Your task to perform on an android device: Open calendar and show me the first week of next month Image 0: 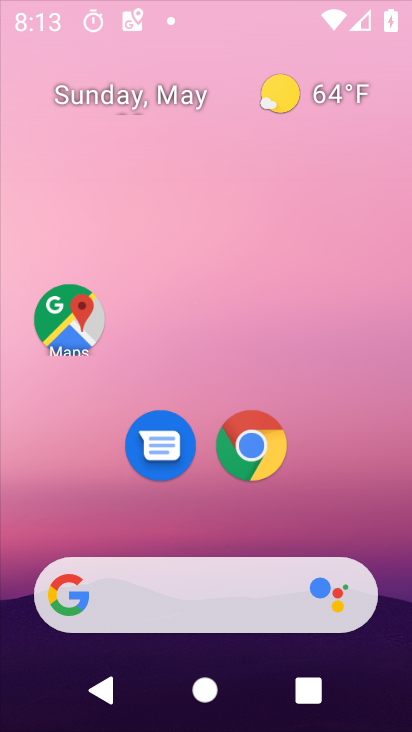
Step 0: click (242, 194)
Your task to perform on an android device: Open calendar and show me the first week of next month Image 1: 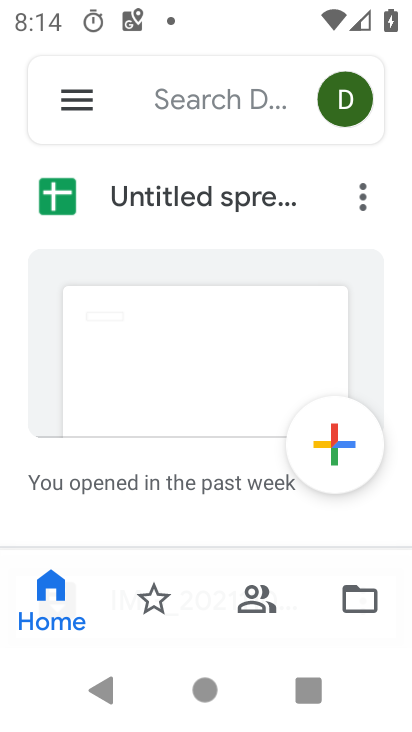
Step 1: drag from (260, 550) to (281, 90)
Your task to perform on an android device: Open calendar and show me the first week of next month Image 2: 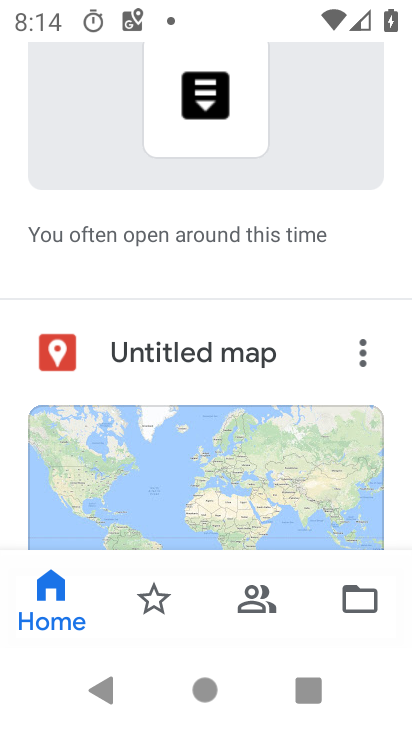
Step 2: drag from (220, 171) to (202, 630)
Your task to perform on an android device: Open calendar and show me the first week of next month Image 3: 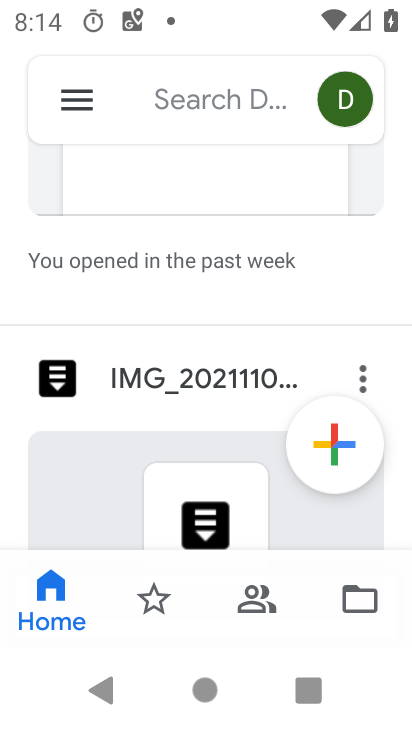
Step 3: press home button
Your task to perform on an android device: Open calendar and show me the first week of next month Image 4: 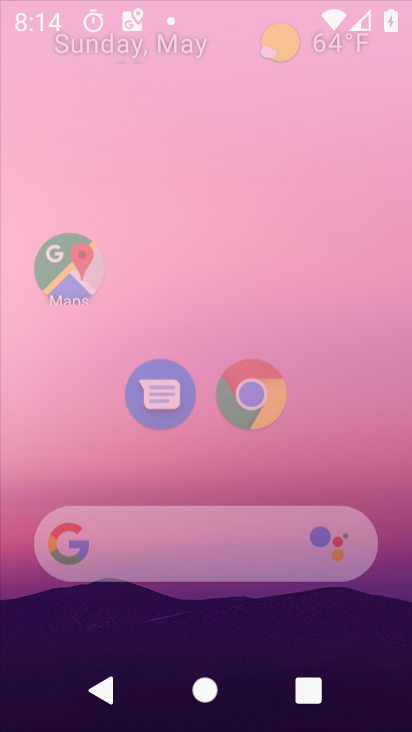
Step 4: drag from (241, 524) to (362, 44)
Your task to perform on an android device: Open calendar and show me the first week of next month Image 5: 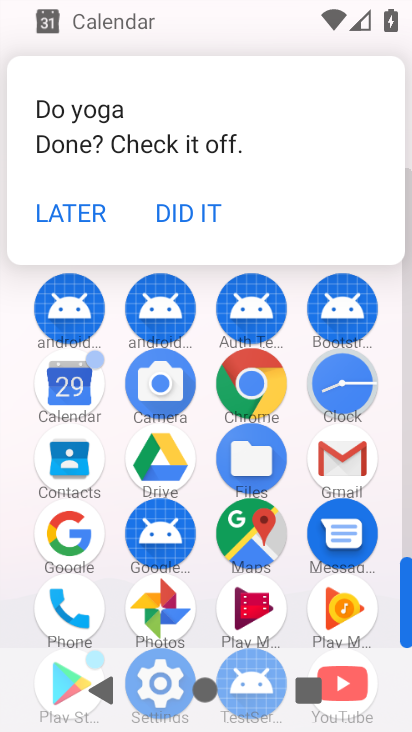
Step 5: click (61, 376)
Your task to perform on an android device: Open calendar and show me the first week of next month Image 6: 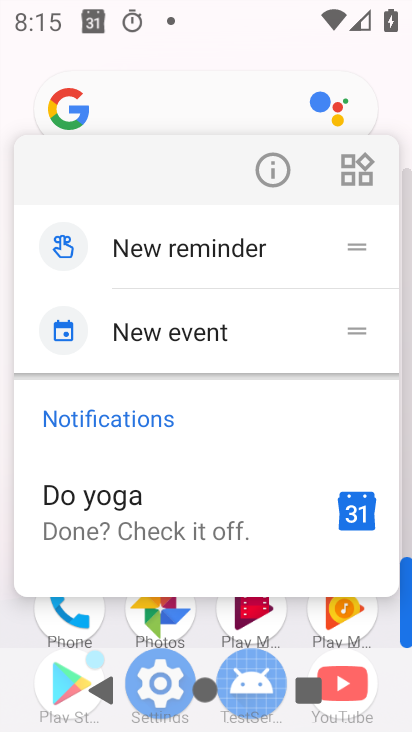
Step 6: click (269, 163)
Your task to perform on an android device: Open calendar and show me the first week of next month Image 7: 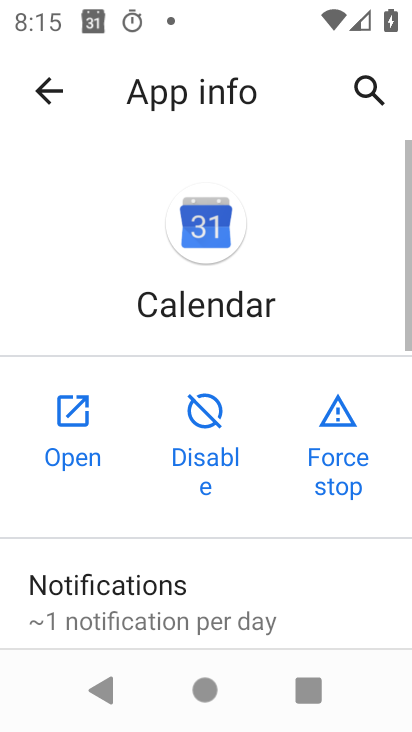
Step 7: click (79, 431)
Your task to perform on an android device: Open calendar and show me the first week of next month Image 8: 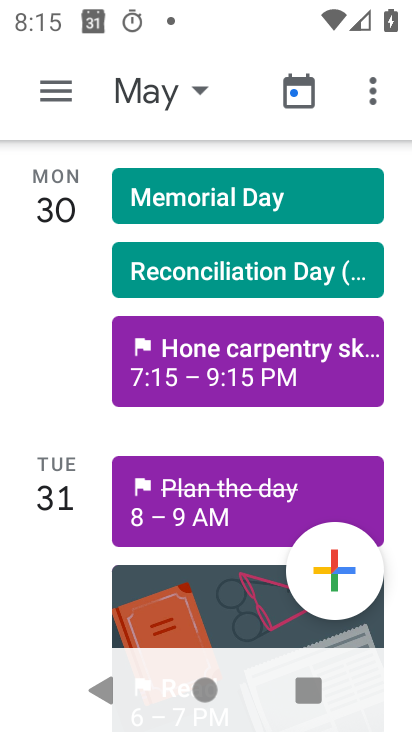
Step 8: click (177, 82)
Your task to perform on an android device: Open calendar and show me the first week of next month Image 9: 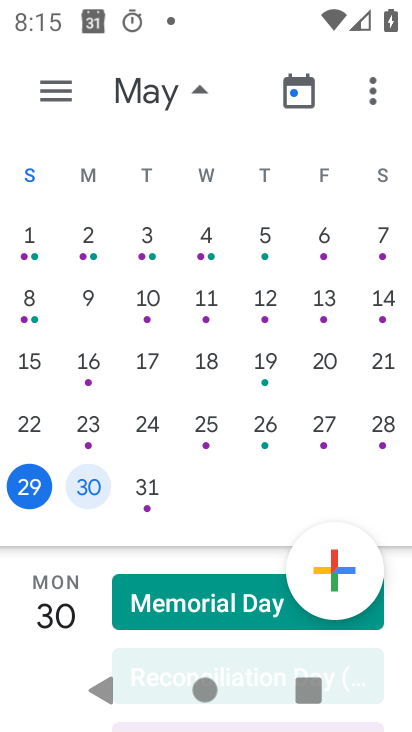
Step 9: drag from (374, 348) to (15, 301)
Your task to perform on an android device: Open calendar and show me the first week of next month Image 10: 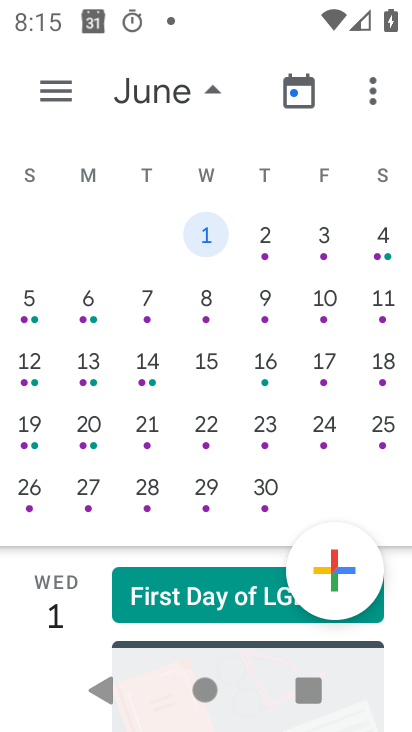
Step 10: click (325, 244)
Your task to perform on an android device: Open calendar and show me the first week of next month Image 11: 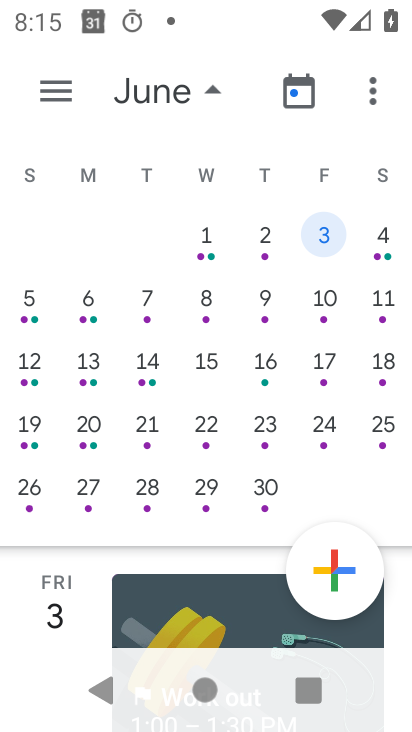
Step 11: task complete